Your task to perform on an android device: Open Yahoo.com Image 0: 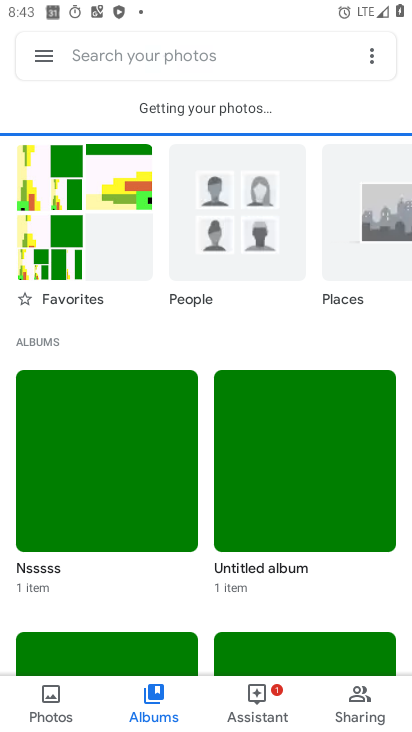
Step 0: press home button
Your task to perform on an android device: Open Yahoo.com Image 1: 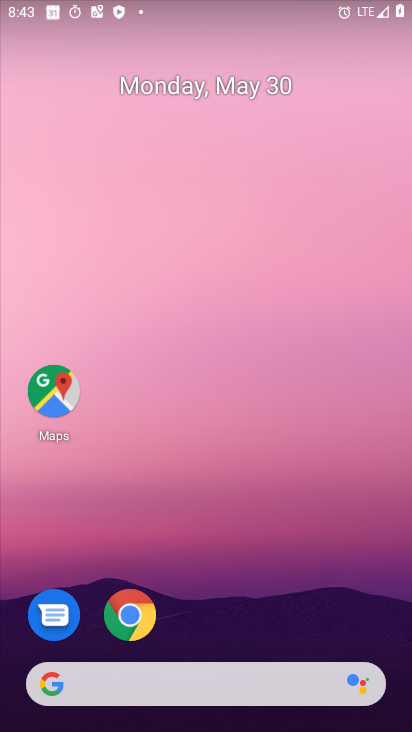
Step 1: drag from (210, 607) to (172, 0)
Your task to perform on an android device: Open Yahoo.com Image 2: 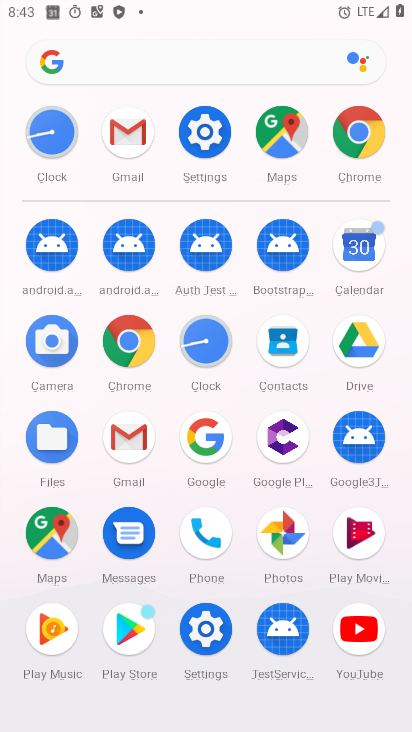
Step 2: click (351, 162)
Your task to perform on an android device: Open Yahoo.com Image 3: 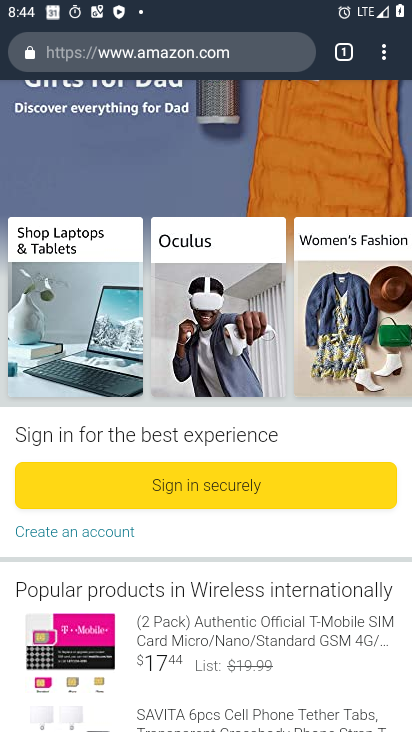
Step 3: click (161, 50)
Your task to perform on an android device: Open Yahoo.com Image 4: 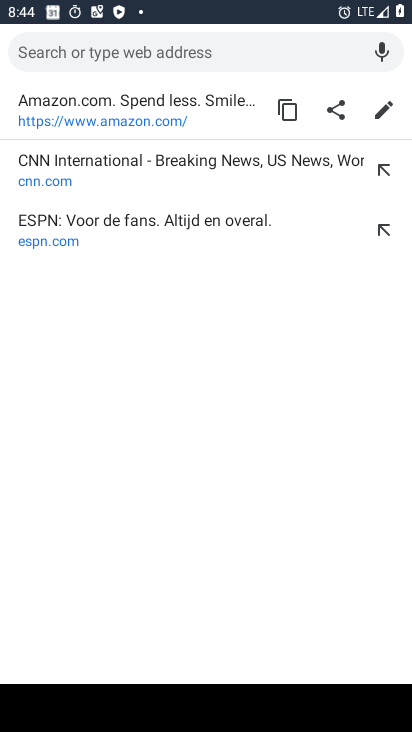
Step 4: type "yahoo"
Your task to perform on an android device: Open Yahoo.com Image 5: 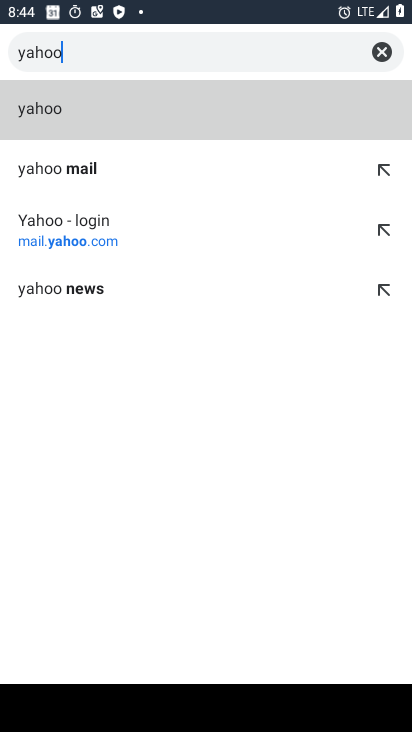
Step 5: click (65, 220)
Your task to perform on an android device: Open Yahoo.com Image 6: 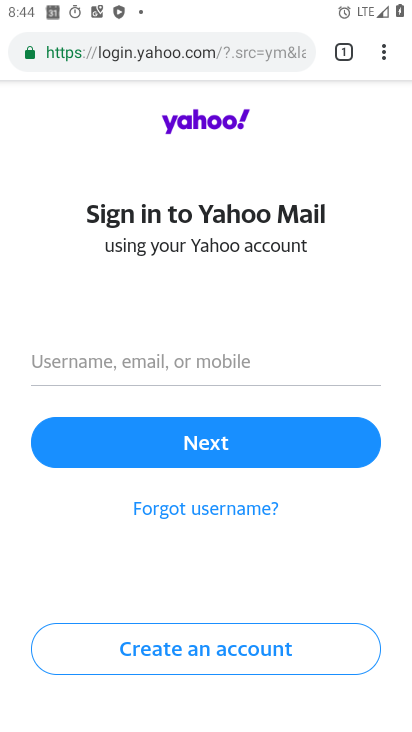
Step 6: task complete